Your task to perform on an android device: see creations saved in the google photos Image 0: 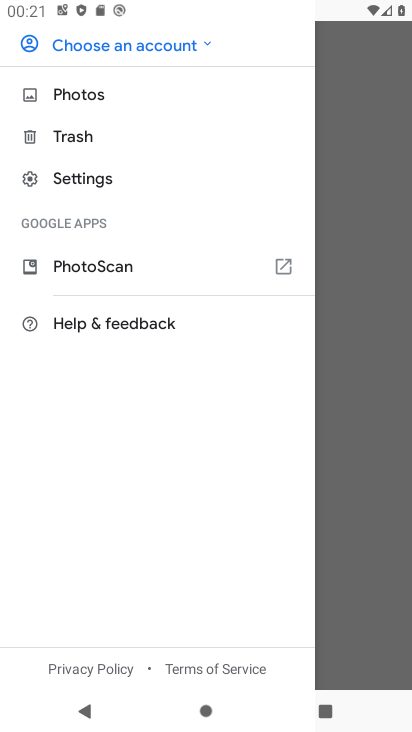
Step 0: press back button
Your task to perform on an android device: see creations saved in the google photos Image 1: 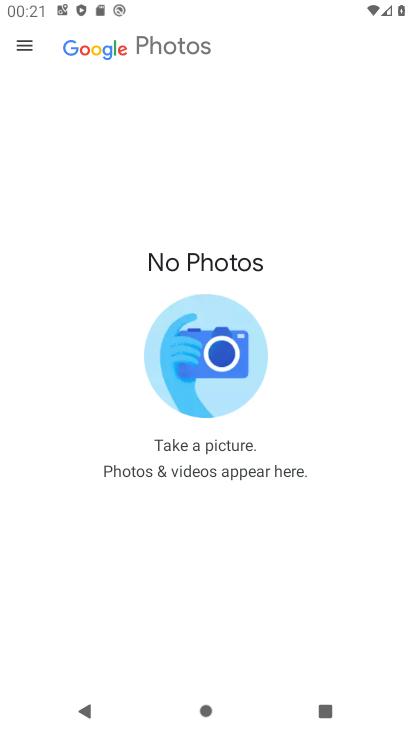
Step 1: click (13, 43)
Your task to perform on an android device: see creations saved in the google photos Image 2: 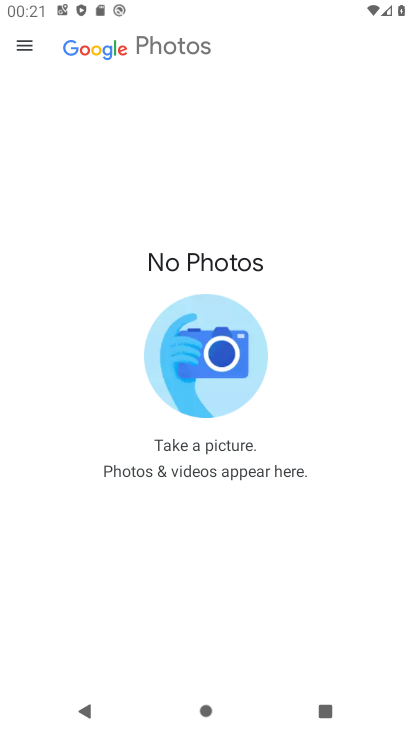
Step 2: click (29, 47)
Your task to perform on an android device: see creations saved in the google photos Image 3: 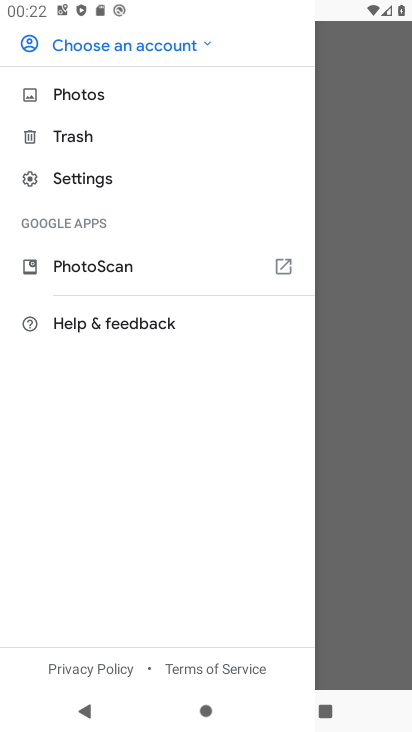
Step 3: task complete